Your task to perform on an android device: open app "TextNow: Call + Text Unlimited" Image 0: 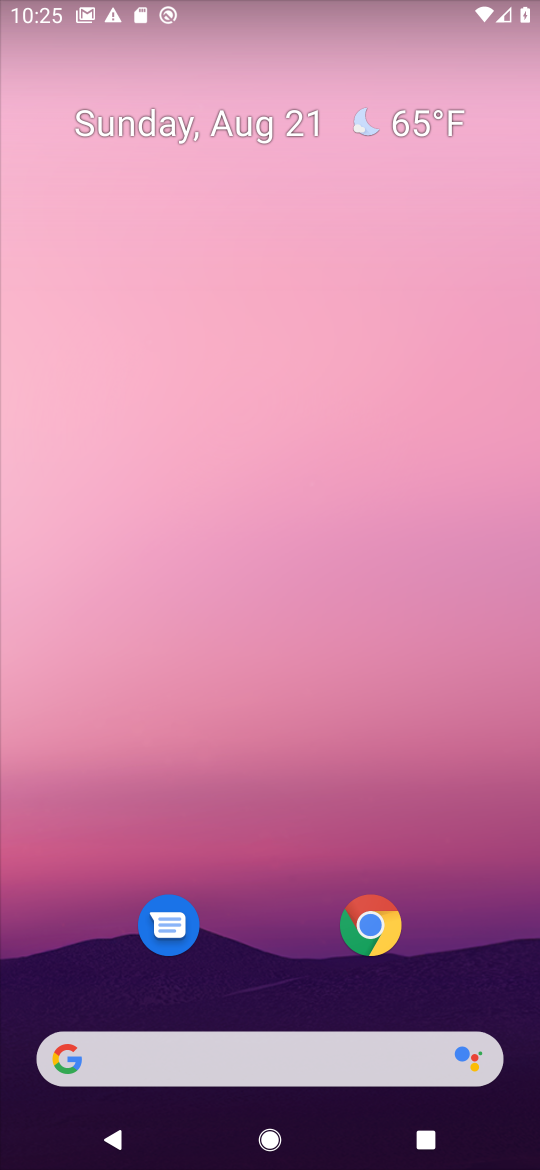
Step 0: drag from (262, 756) to (304, 65)
Your task to perform on an android device: open app "TextNow: Call + Text Unlimited" Image 1: 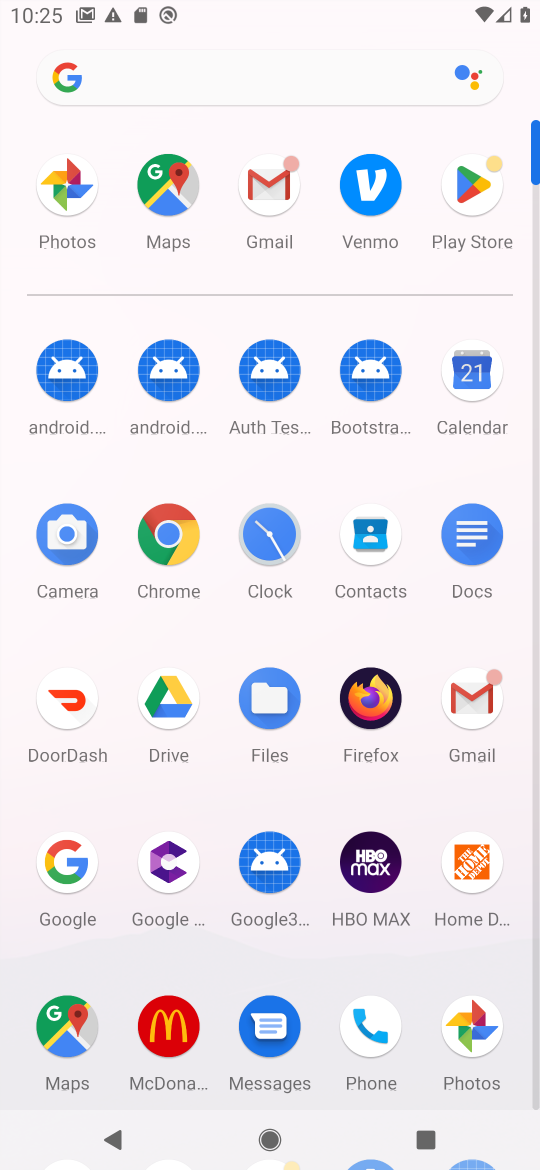
Step 1: click (467, 197)
Your task to perform on an android device: open app "TextNow: Call + Text Unlimited" Image 2: 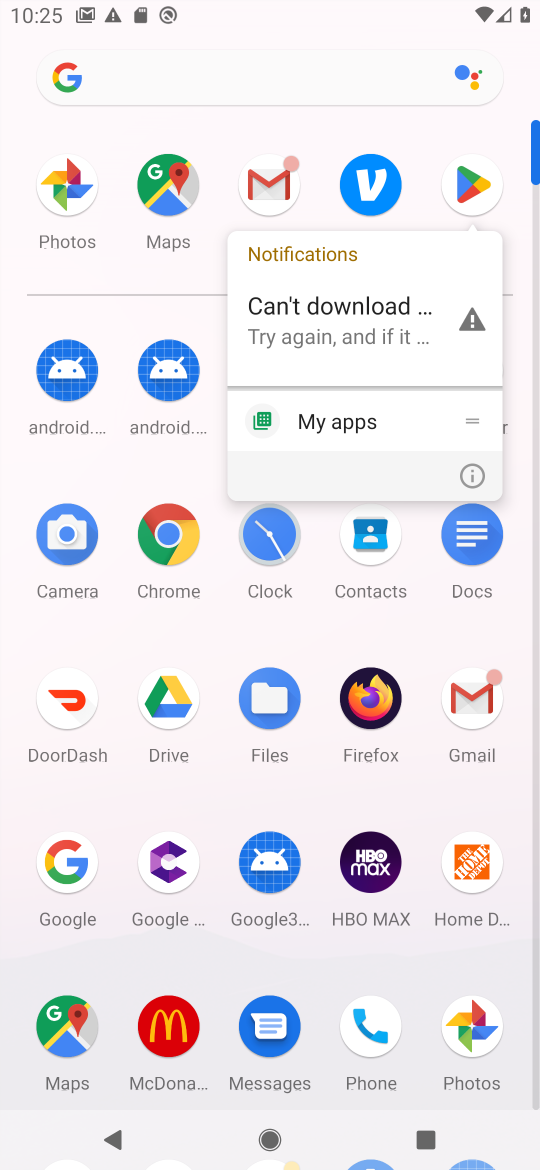
Step 2: click (466, 194)
Your task to perform on an android device: open app "TextNow: Call + Text Unlimited" Image 3: 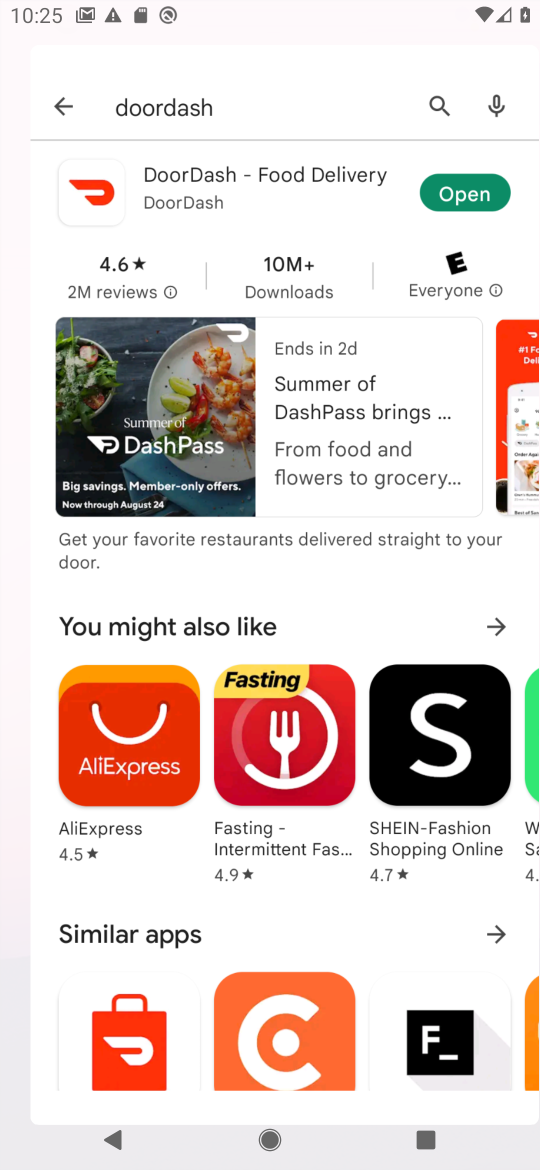
Step 3: click (484, 173)
Your task to perform on an android device: open app "TextNow: Call + Text Unlimited" Image 4: 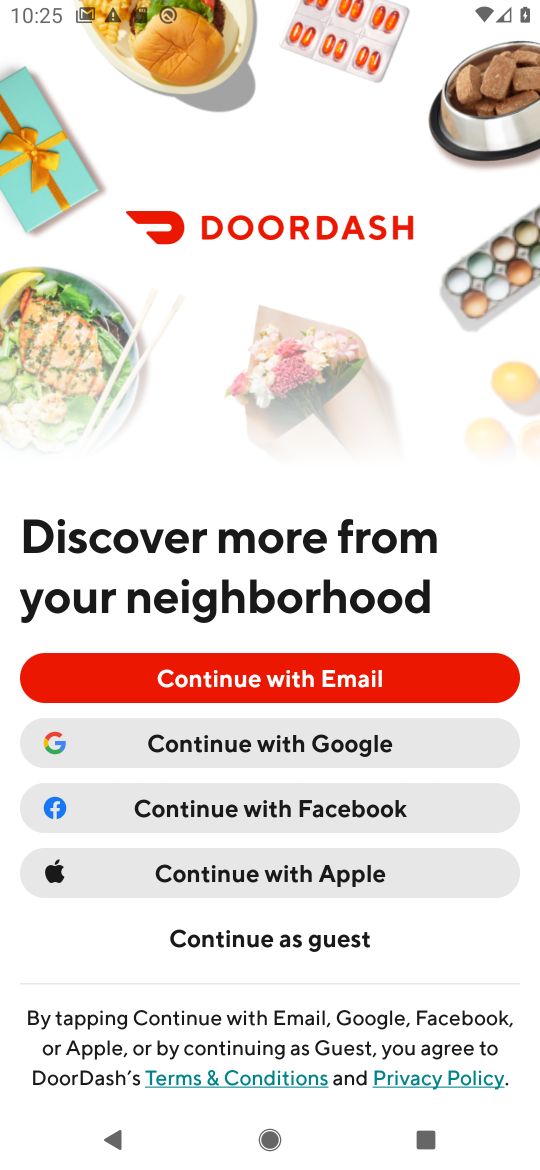
Step 4: press back button
Your task to perform on an android device: open app "TextNow: Call + Text Unlimited" Image 5: 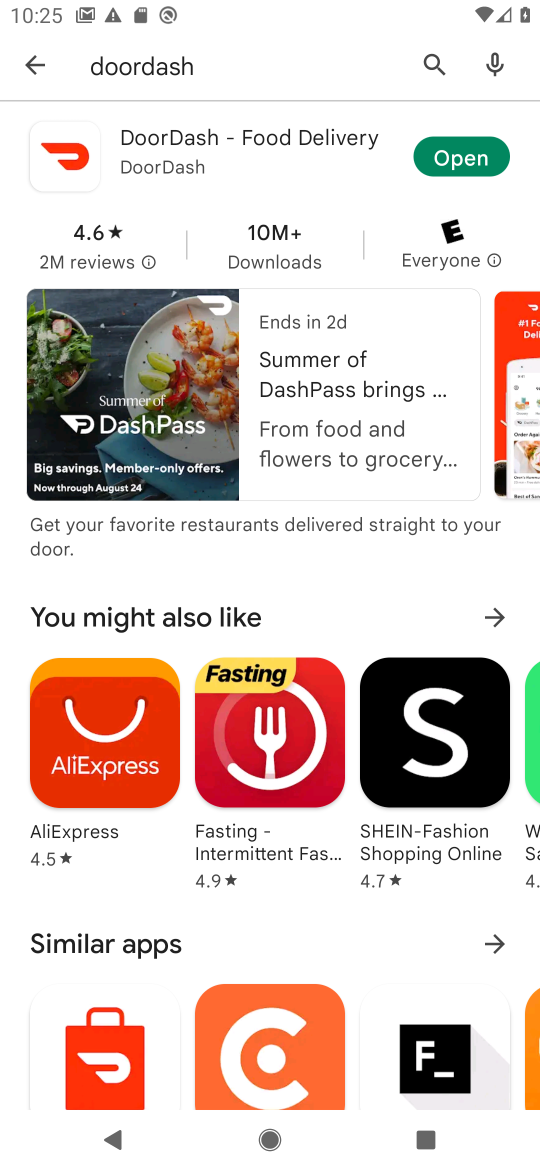
Step 5: click (421, 65)
Your task to perform on an android device: open app "TextNow: Call + Text Unlimited" Image 6: 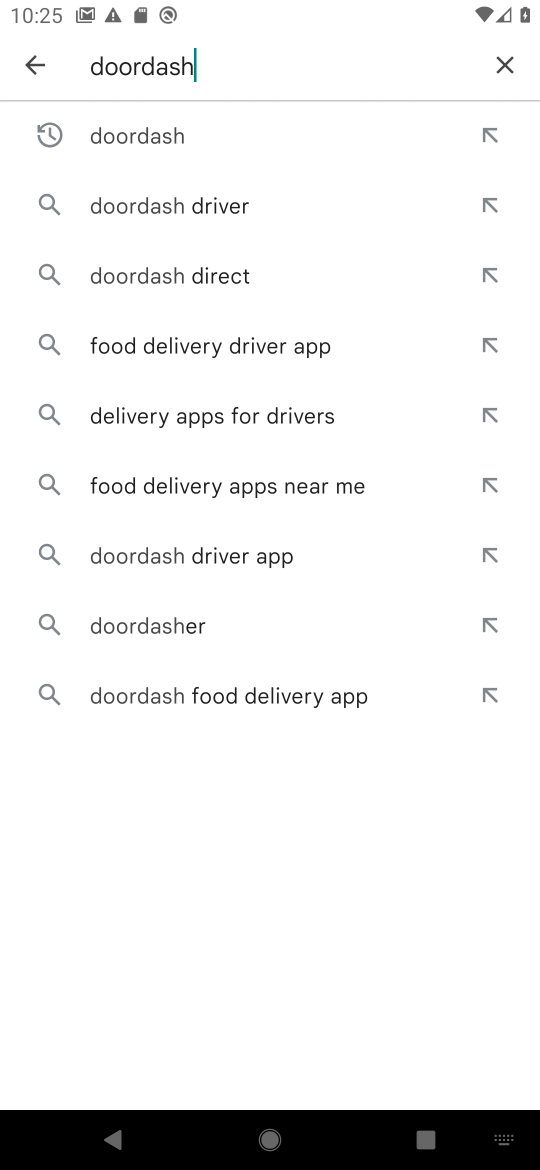
Step 6: click (510, 47)
Your task to perform on an android device: open app "TextNow: Call + Text Unlimited" Image 7: 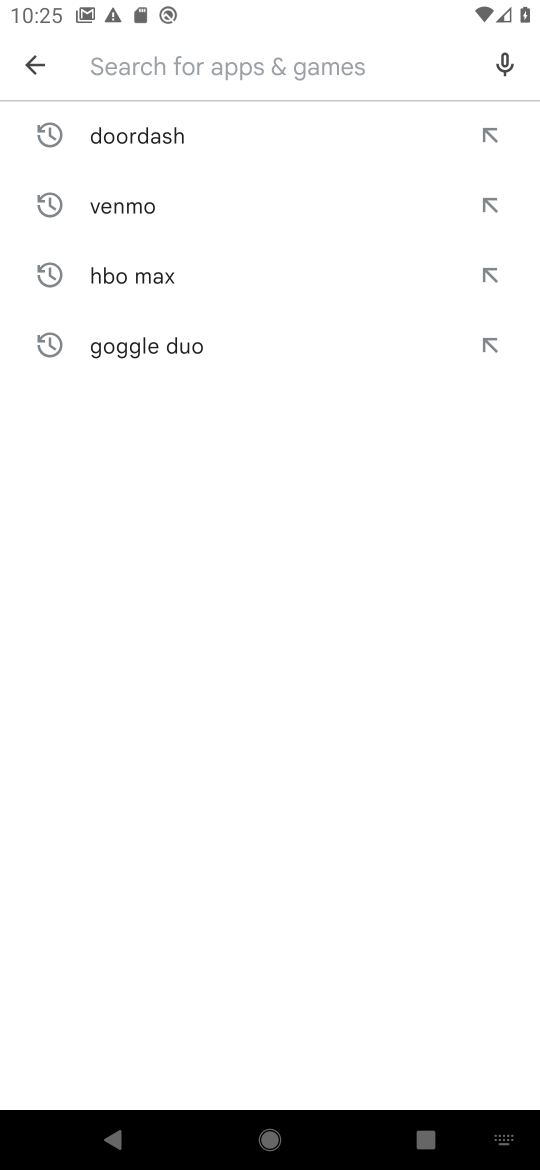
Step 7: click (289, 58)
Your task to perform on an android device: open app "TextNow: Call + Text Unlimited" Image 8: 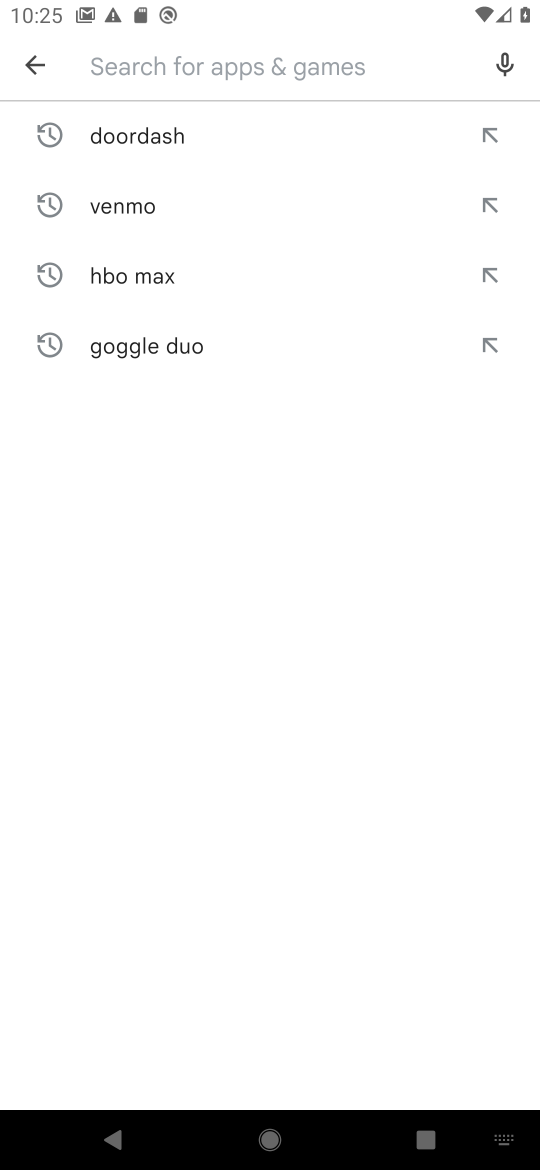
Step 8: click (183, 66)
Your task to perform on an android device: open app "TextNow: Call + Text Unlimited" Image 9: 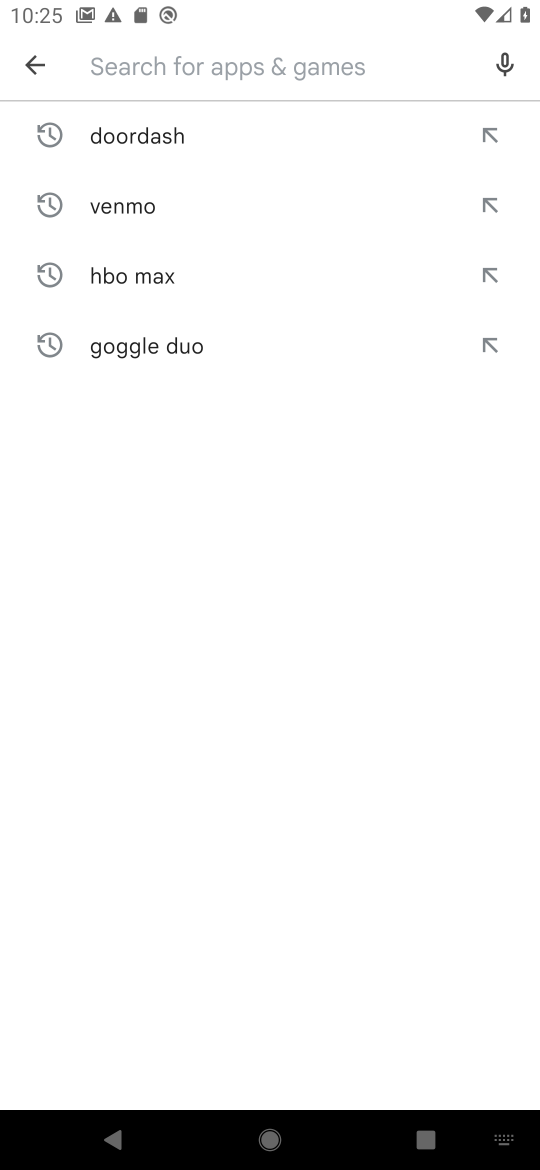
Step 9: type "TextNow"
Your task to perform on an android device: open app "TextNow: Call + Text Unlimited" Image 10: 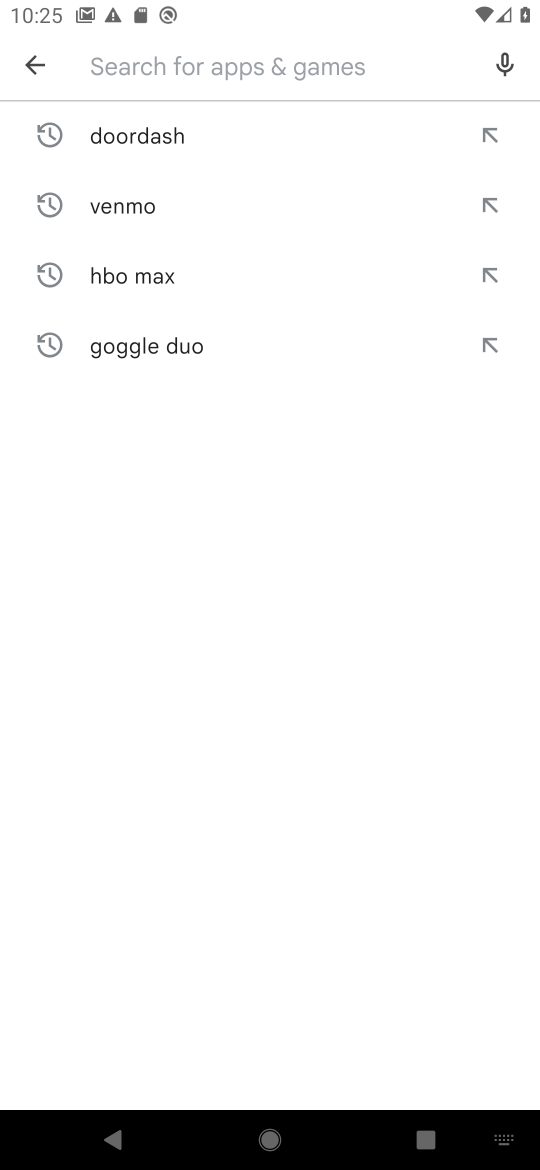
Step 10: click (310, 625)
Your task to perform on an android device: open app "TextNow: Call + Text Unlimited" Image 11: 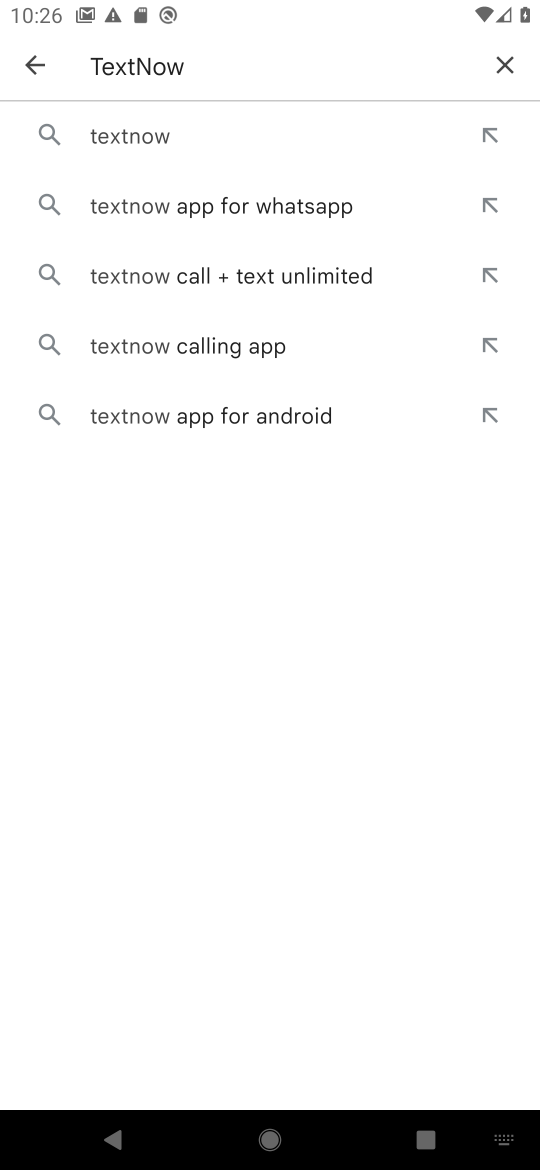
Step 11: click (189, 141)
Your task to perform on an android device: open app "TextNow: Call + Text Unlimited" Image 12: 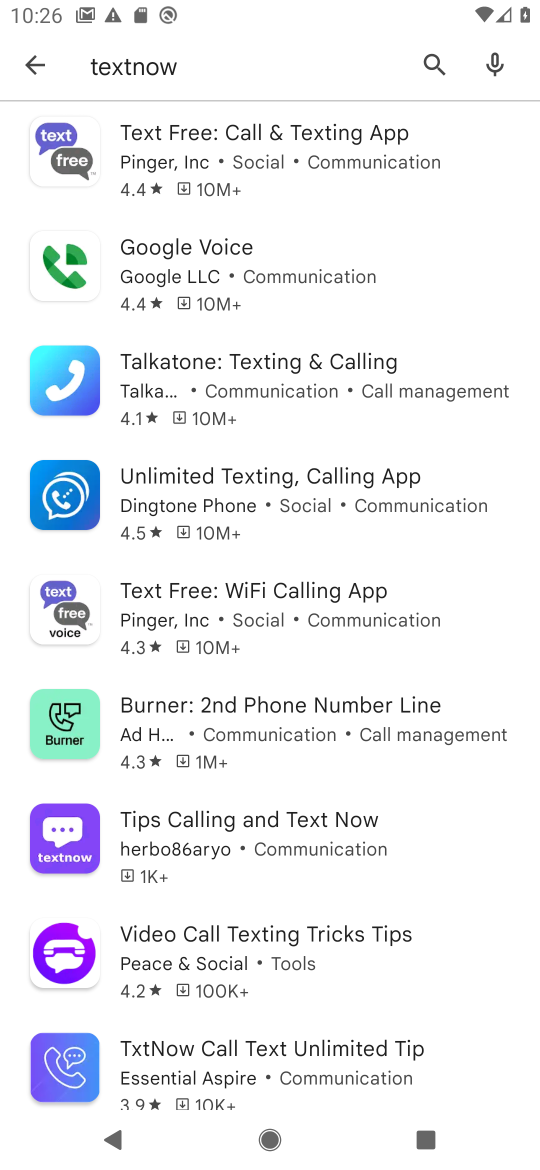
Step 12: task complete